Your task to perform on an android device: Open the calendar app, open the side menu, and click the "Day" option Image 0: 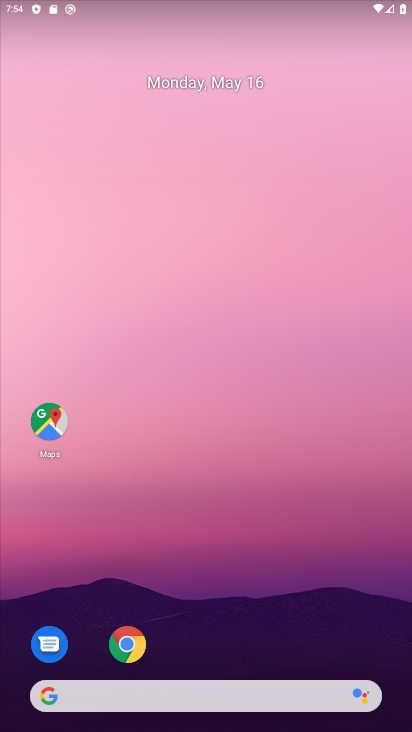
Step 0: drag from (141, 723) to (180, 171)
Your task to perform on an android device: Open the calendar app, open the side menu, and click the "Day" option Image 1: 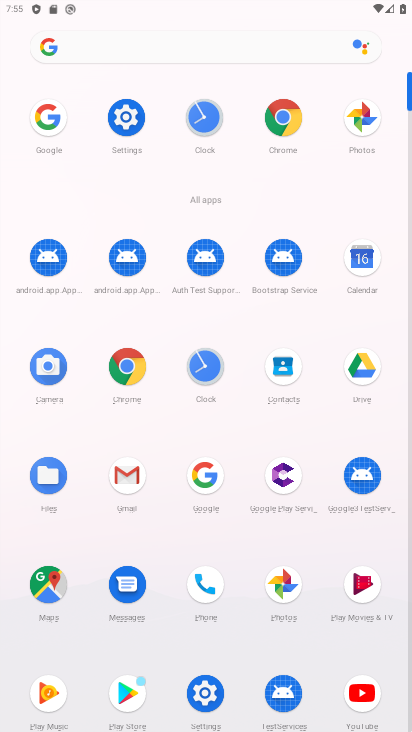
Step 1: click (367, 258)
Your task to perform on an android device: Open the calendar app, open the side menu, and click the "Day" option Image 2: 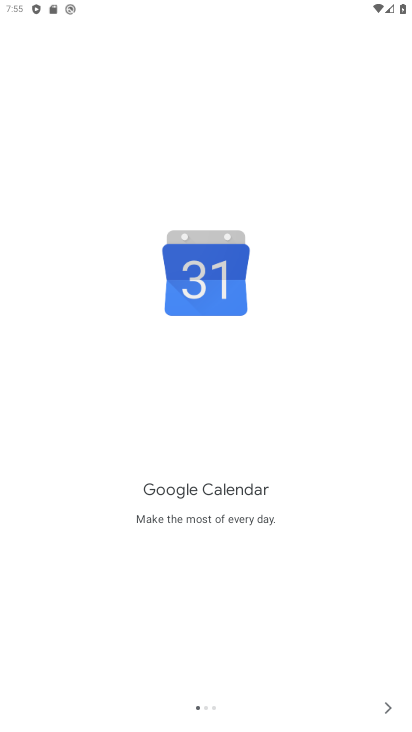
Step 2: click (387, 708)
Your task to perform on an android device: Open the calendar app, open the side menu, and click the "Day" option Image 3: 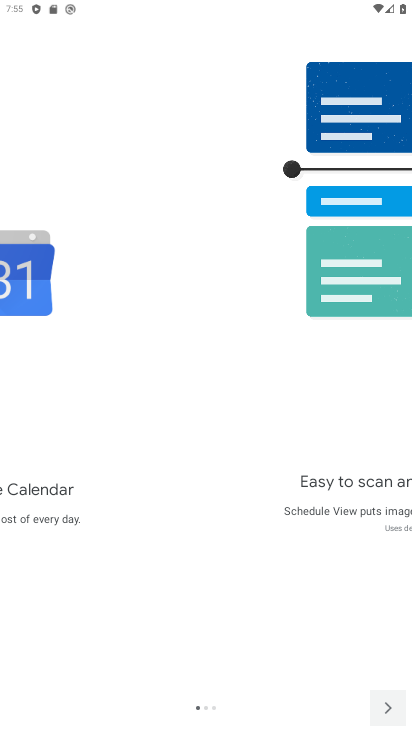
Step 3: click (387, 708)
Your task to perform on an android device: Open the calendar app, open the side menu, and click the "Day" option Image 4: 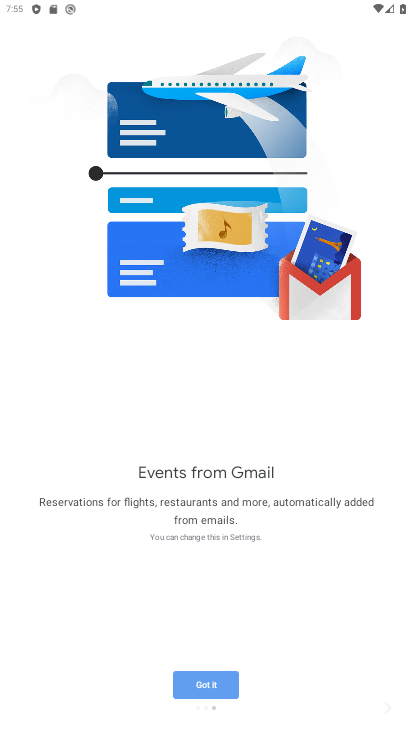
Step 4: click (387, 708)
Your task to perform on an android device: Open the calendar app, open the side menu, and click the "Day" option Image 5: 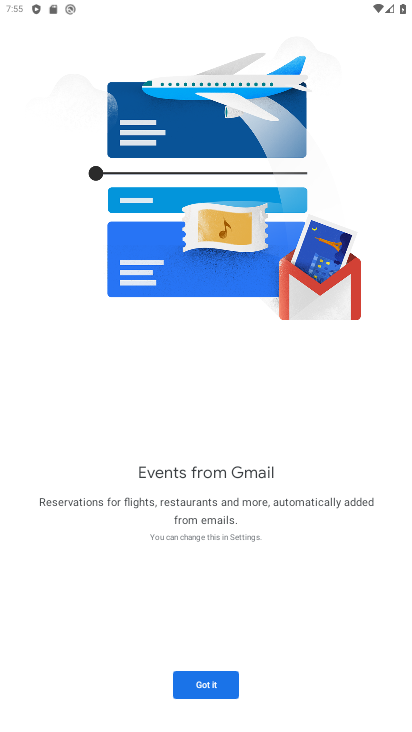
Step 5: click (222, 682)
Your task to perform on an android device: Open the calendar app, open the side menu, and click the "Day" option Image 6: 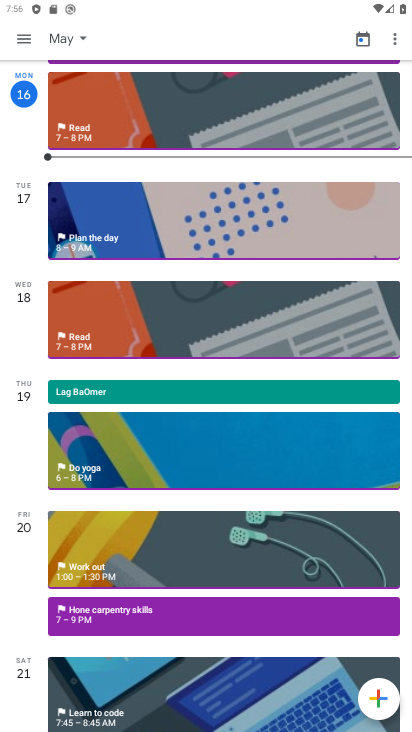
Step 6: click (25, 34)
Your task to perform on an android device: Open the calendar app, open the side menu, and click the "Day" option Image 7: 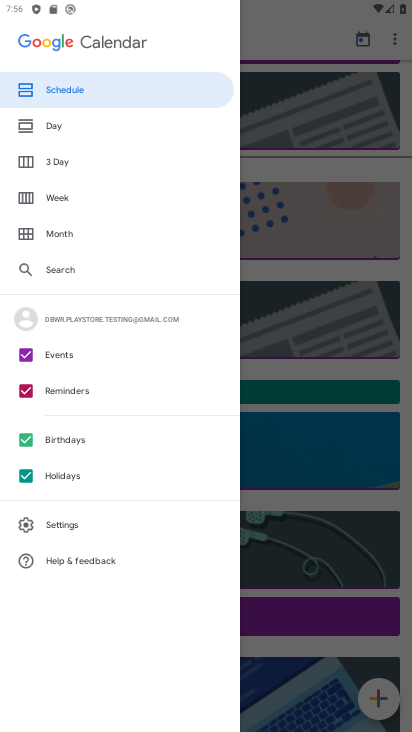
Step 7: click (55, 138)
Your task to perform on an android device: Open the calendar app, open the side menu, and click the "Day" option Image 8: 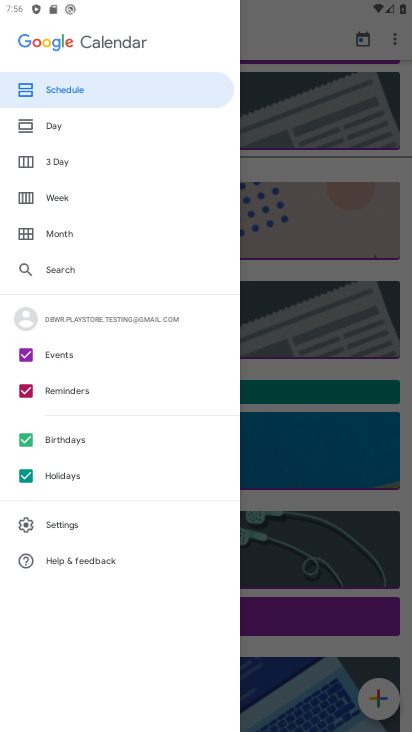
Step 8: click (46, 130)
Your task to perform on an android device: Open the calendar app, open the side menu, and click the "Day" option Image 9: 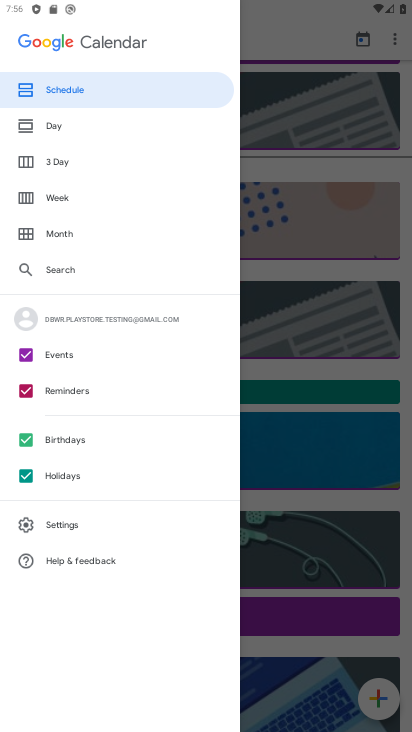
Step 9: click (75, 136)
Your task to perform on an android device: Open the calendar app, open the side menu, and click the "Day" option Image 10: 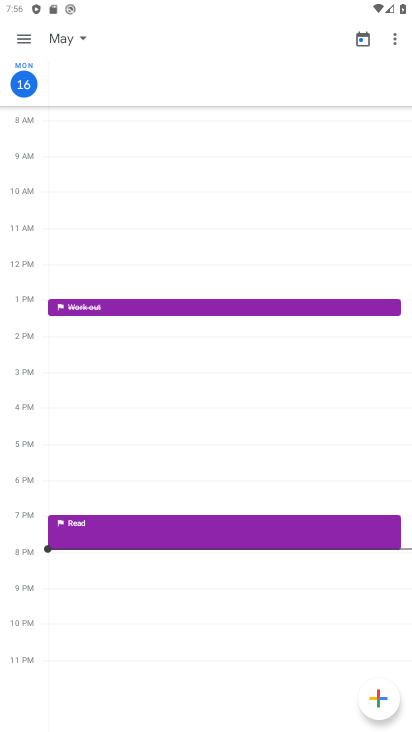
Step 10: task complete